Your task to perform on an android device: Go to CNN.com Image 0: 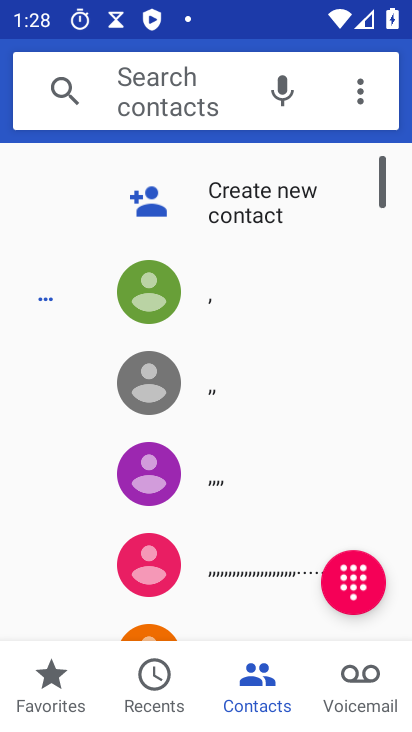
Step 0: press home button
Your task to perform on an android device: Go to CNN.com Image 1: 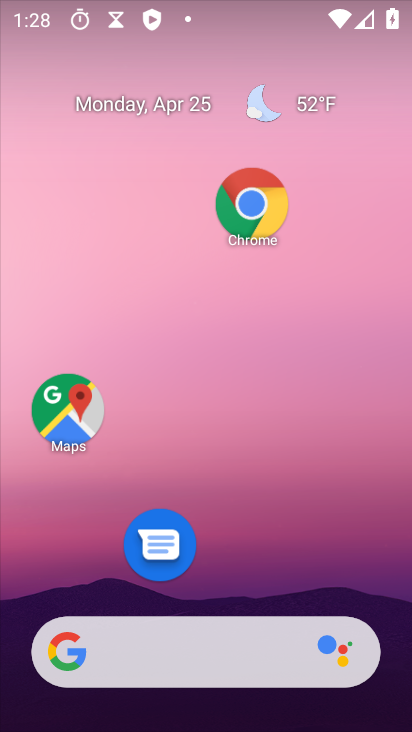
Step 1: drag from (287, 662) to (402, 337)
Your task to perform on an android device: Go to CNN.com Image 2: 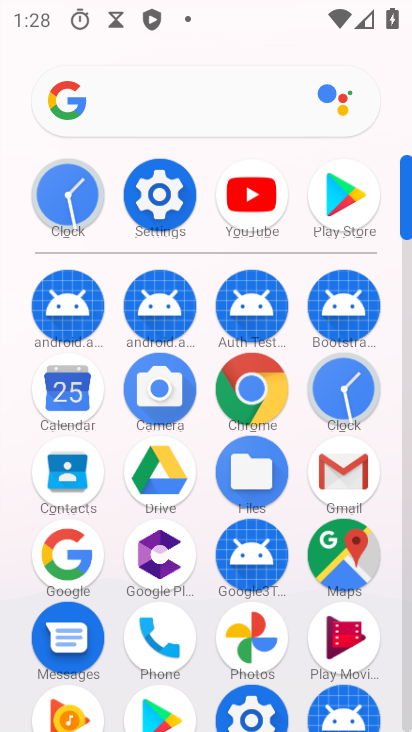
Step 2: click (219, 384)
Your task to perform on an android device: Go to CNN.com Image 3: 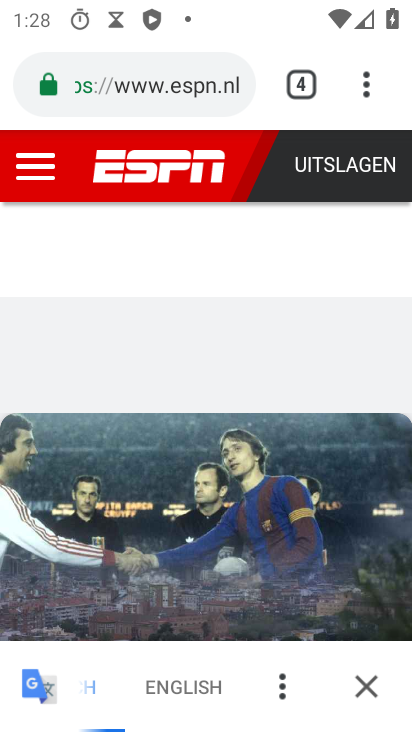
Step 3: click (170, 87)
Your task to perform on an android device: Go to CNN.com Image 4: 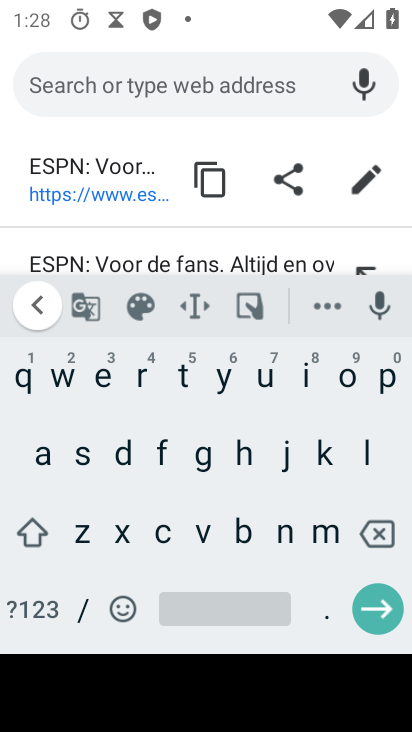
Step 4: click (159, 532)
Your task to perform on an android device: Go to CNN.com Image 5: 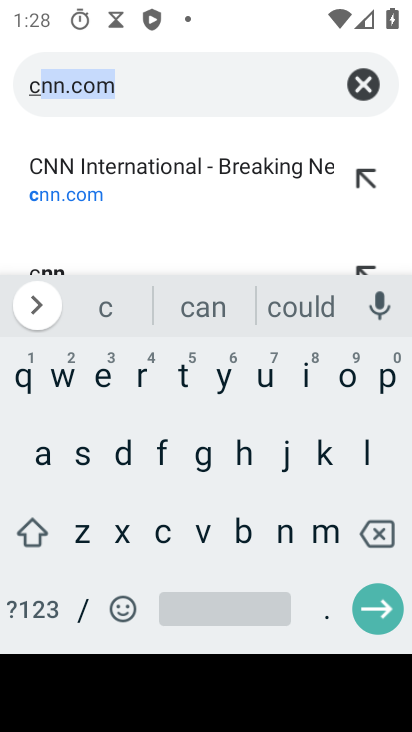
Step 5: click (146, 104)
Your task to perform on an android device: Go to CNN.com Image 6: 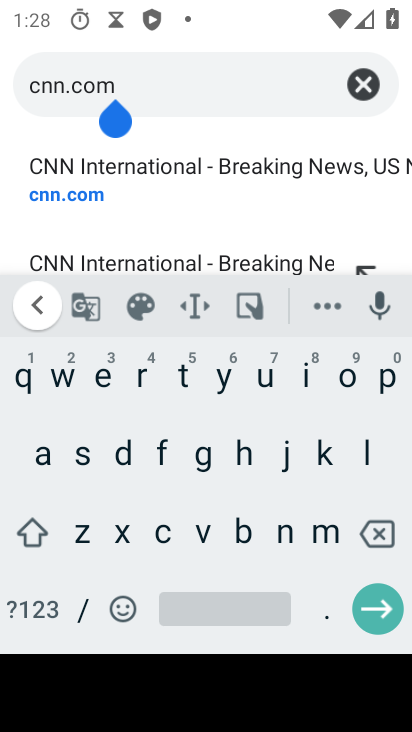
Step 6: click (377, 614)
Your task to perform on an android device: Go to CNN.com Image 7: 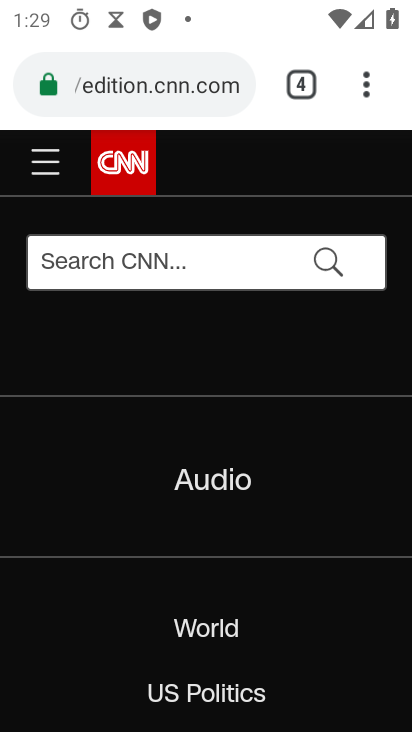
Step 7: task complete